Your task to perform on an android device: clear history in the chrome app Image 0: 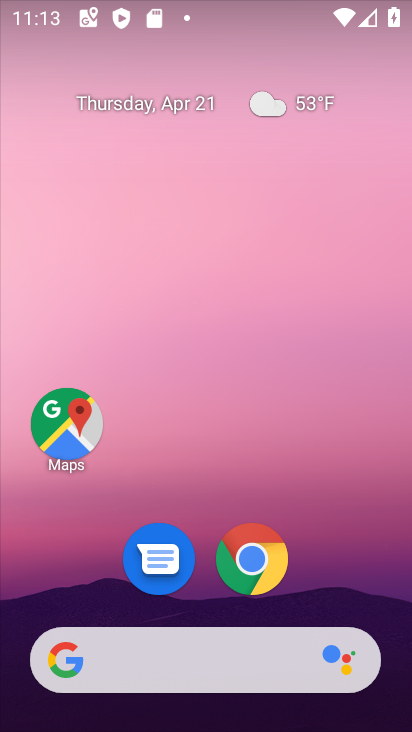
Step 0: click (253, 568)
Your task to perform on an android device: clear history in the chrome app Image 1: 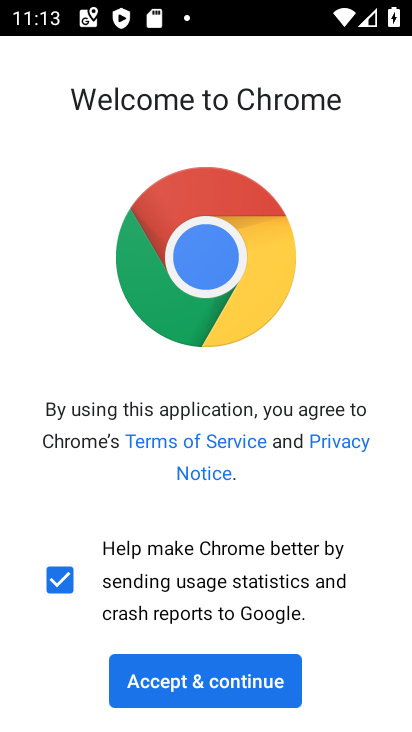
Step 1: click (180, 684)
Your task to perform on an android device: clear history in the chrome app Image 2: 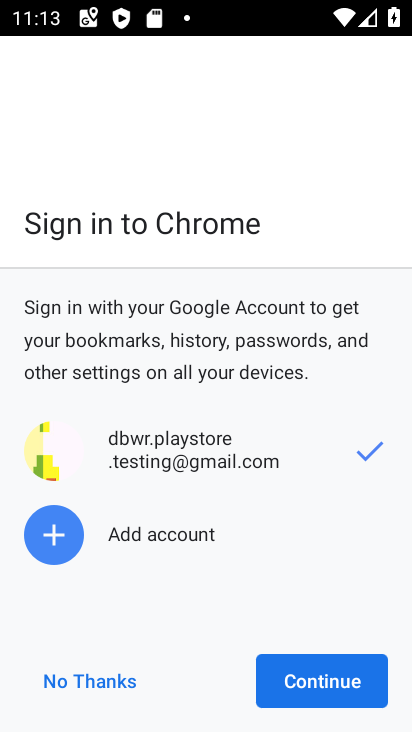
Step 2: click (102, 687)
Your task to perform on an android device: clear history in the chrome app Image 3: 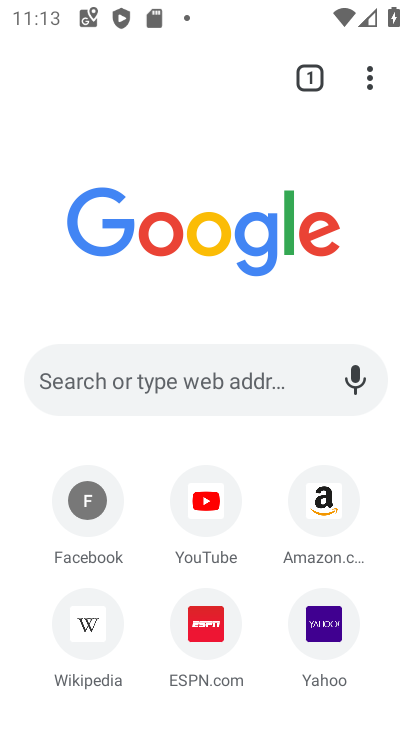
Step 3: click (369, 80)
Your task to perform on an android device: clear history in the chrome app Image 4: 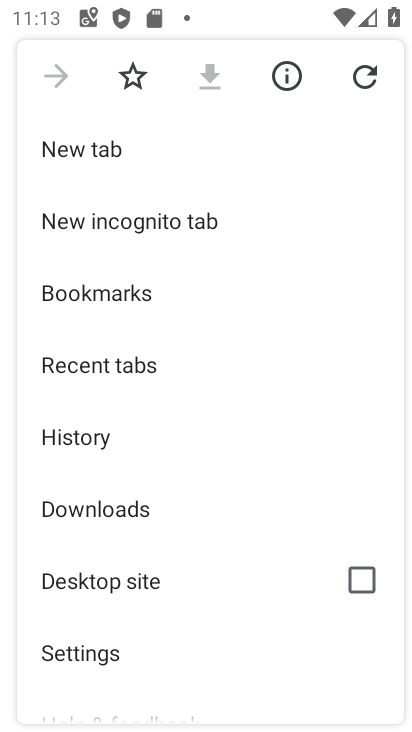
Step 4: click (76, 429)
Your task to perform on an android device: clear history in the chrome app Image 5: 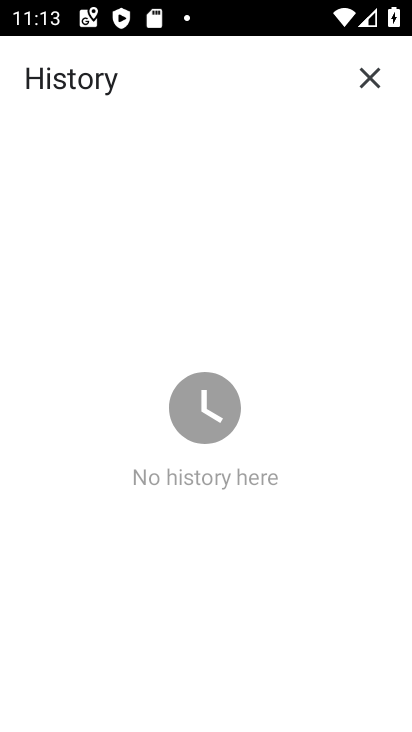
Step 5: task complete